Your task to perform on an android device: Google the capital of Bolivia Image 0: 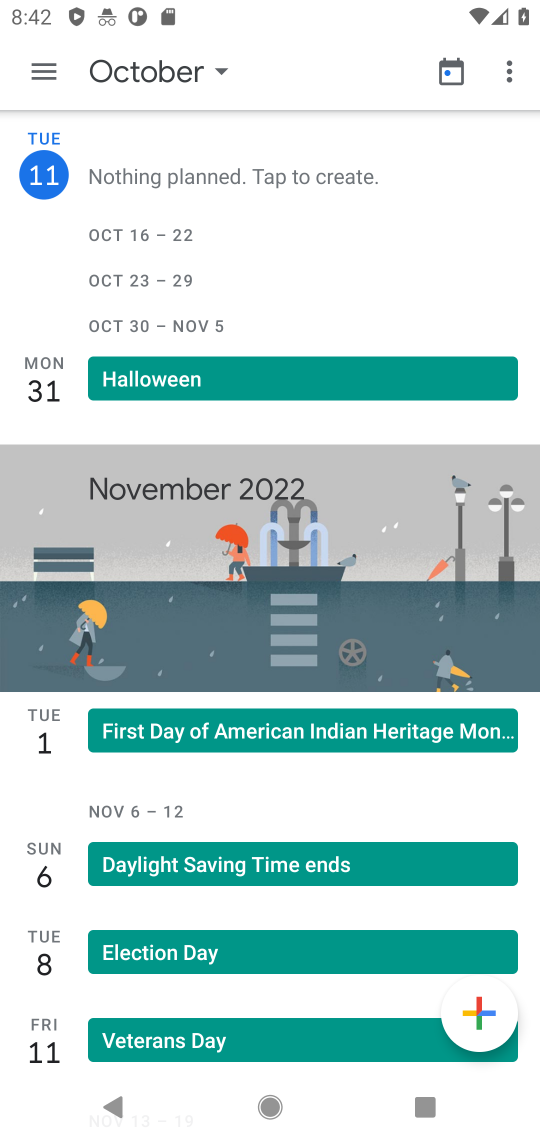
Step 0: press home button
Your task to perform on an android device: Google the capital of Bolivia Image 1: 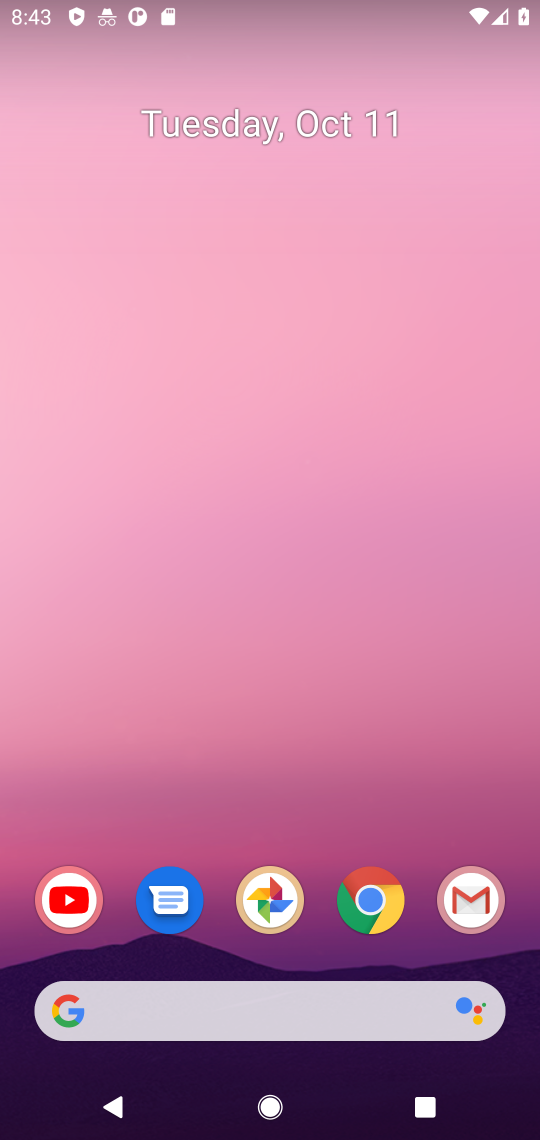
Step 1: click (368, 889)
Your task to perform on an android device: Google the capital of Bolivia Image 2: 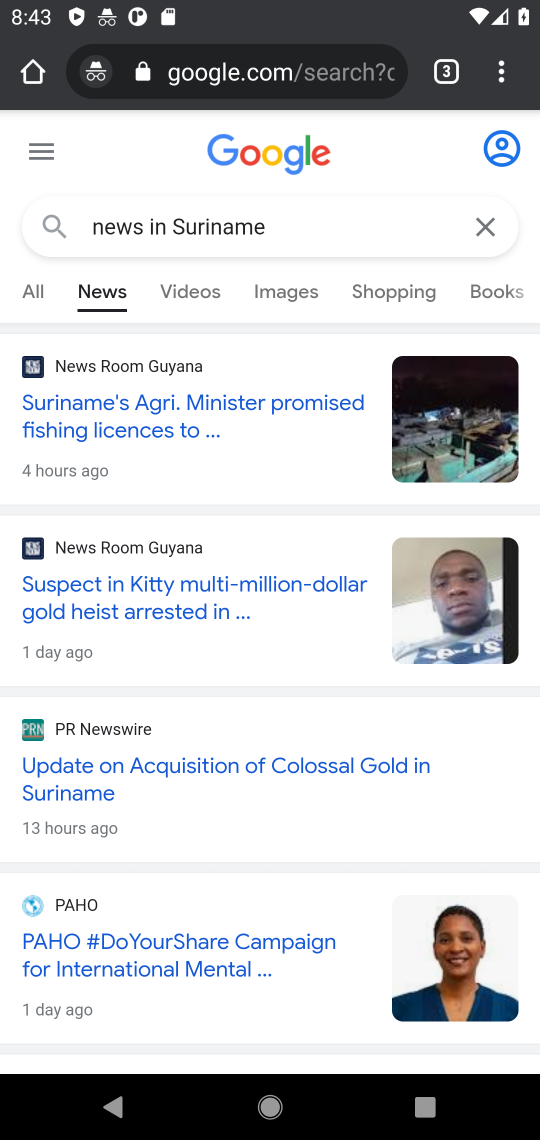
Step 2: click (328, 88)
Your task to perform on an android device: Google the capital of Bolivia Image 3: 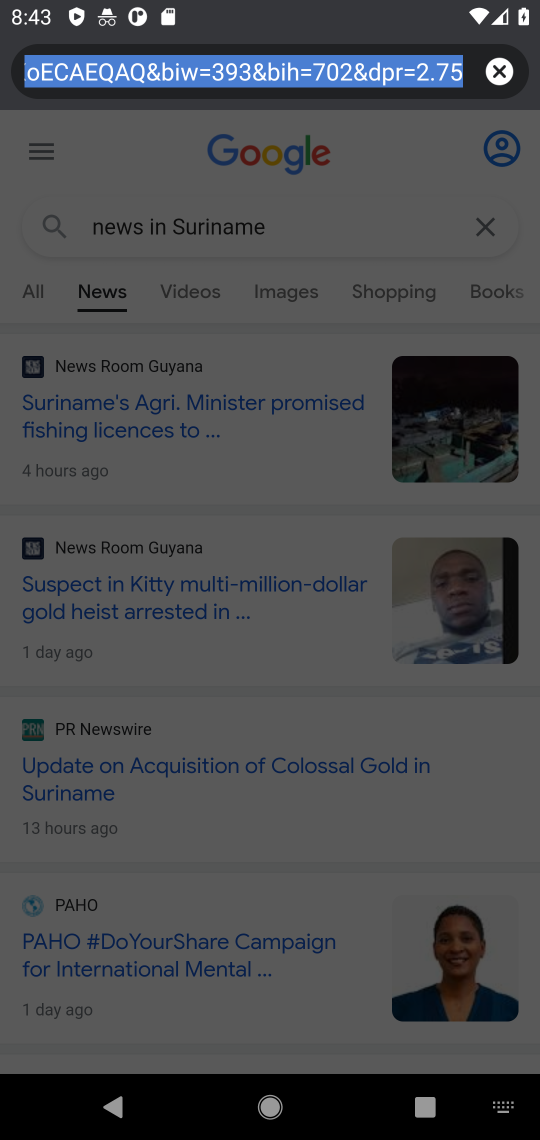
Step 3: type "capital of Bolivia"
Your task to perform on an android device: Google the capital of Bolivia Image 4: 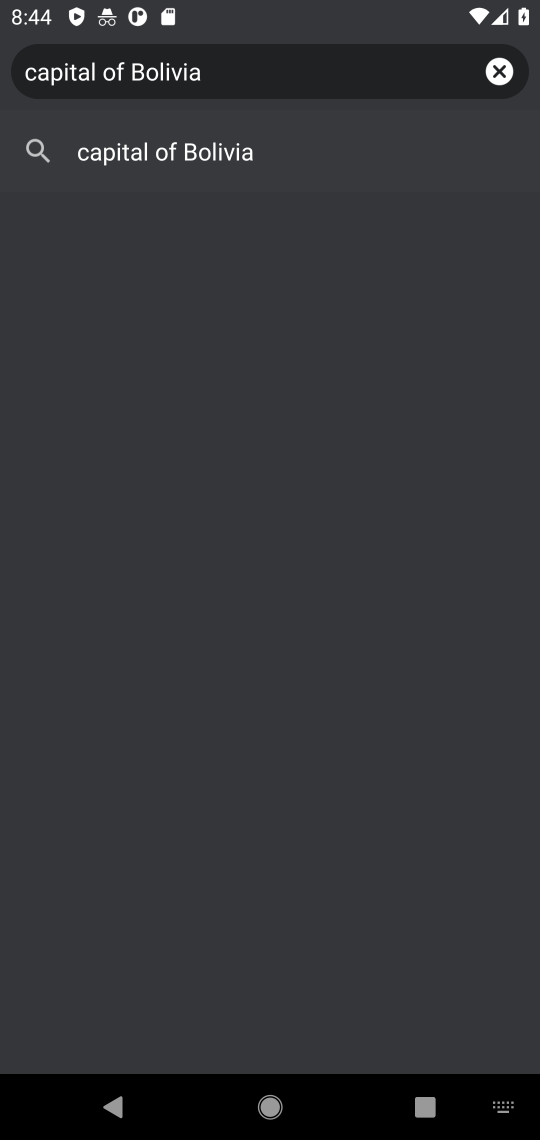
Step 4: click (218, 153)
Your task to perform on an android device: Google the capital of Bolivia Image 5: 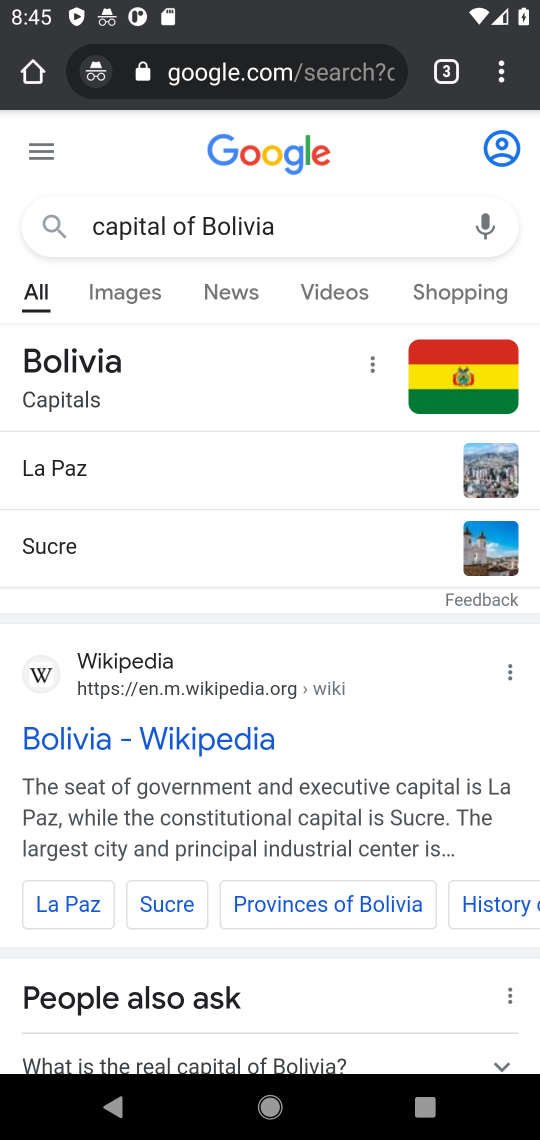
Step 5: task complete